Your task to perform on an android device: Search for hotels in Tokyo Image 0: 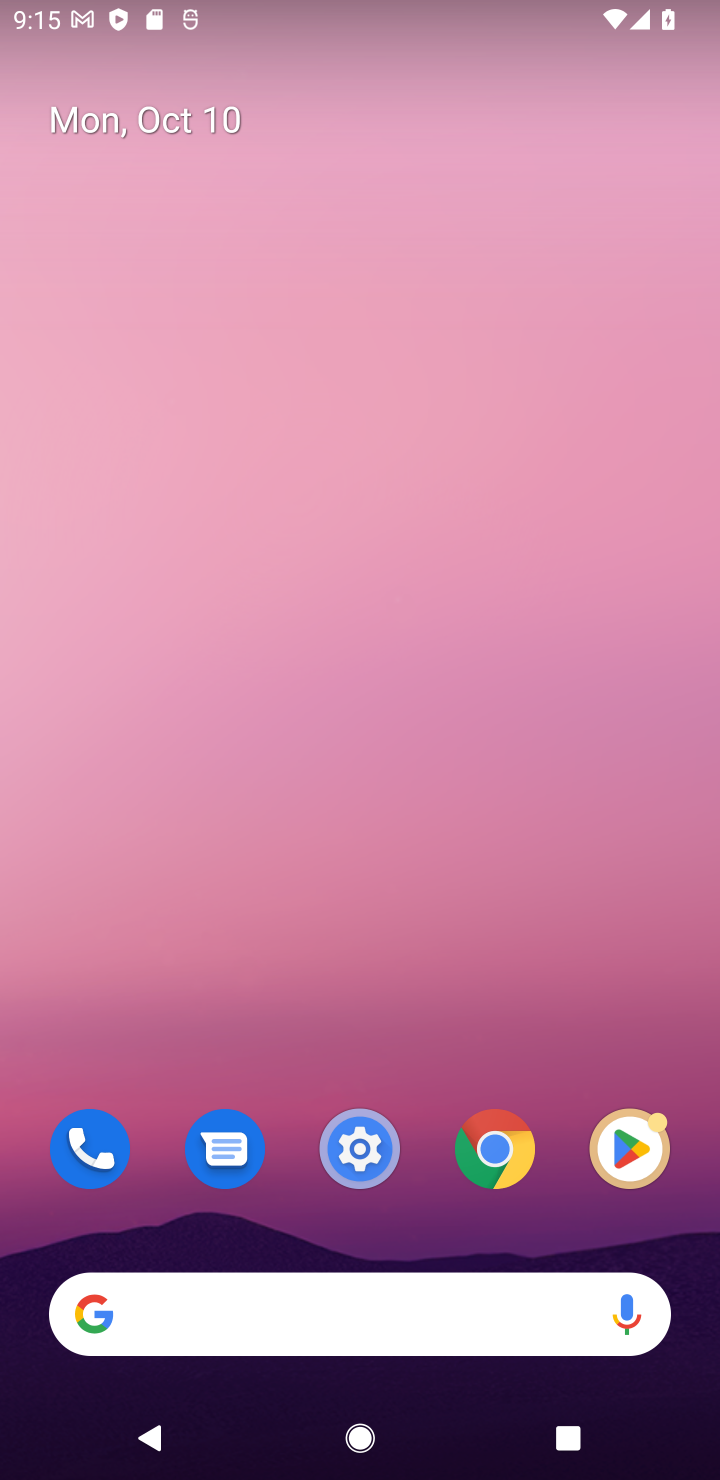
Step 0: click (344, 1342)
Your task to perform on an android device: Search for hotels in Tokyo Image 1: 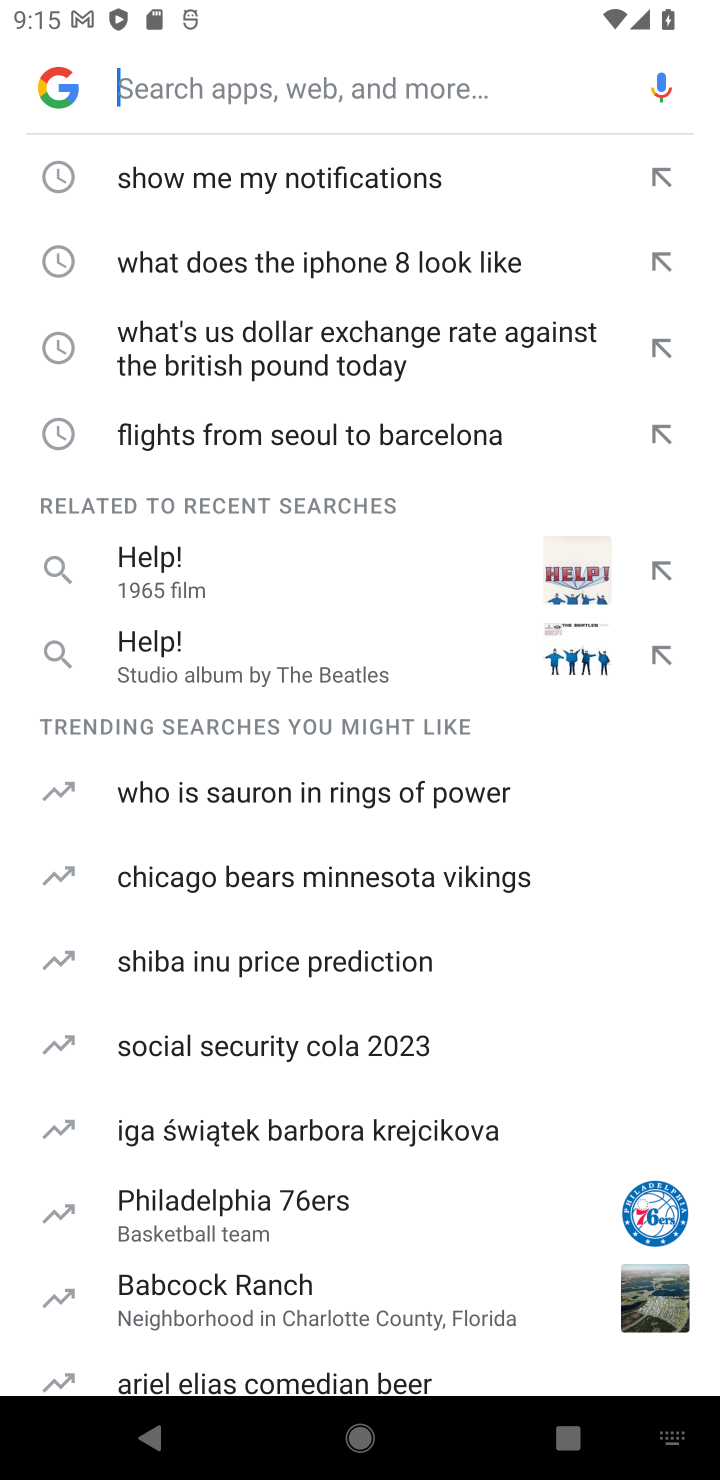
Step 1: type "Search for hotels in Tokyo"
Your task to perform on an android device: Search for hotels in Tokyo Image 2: 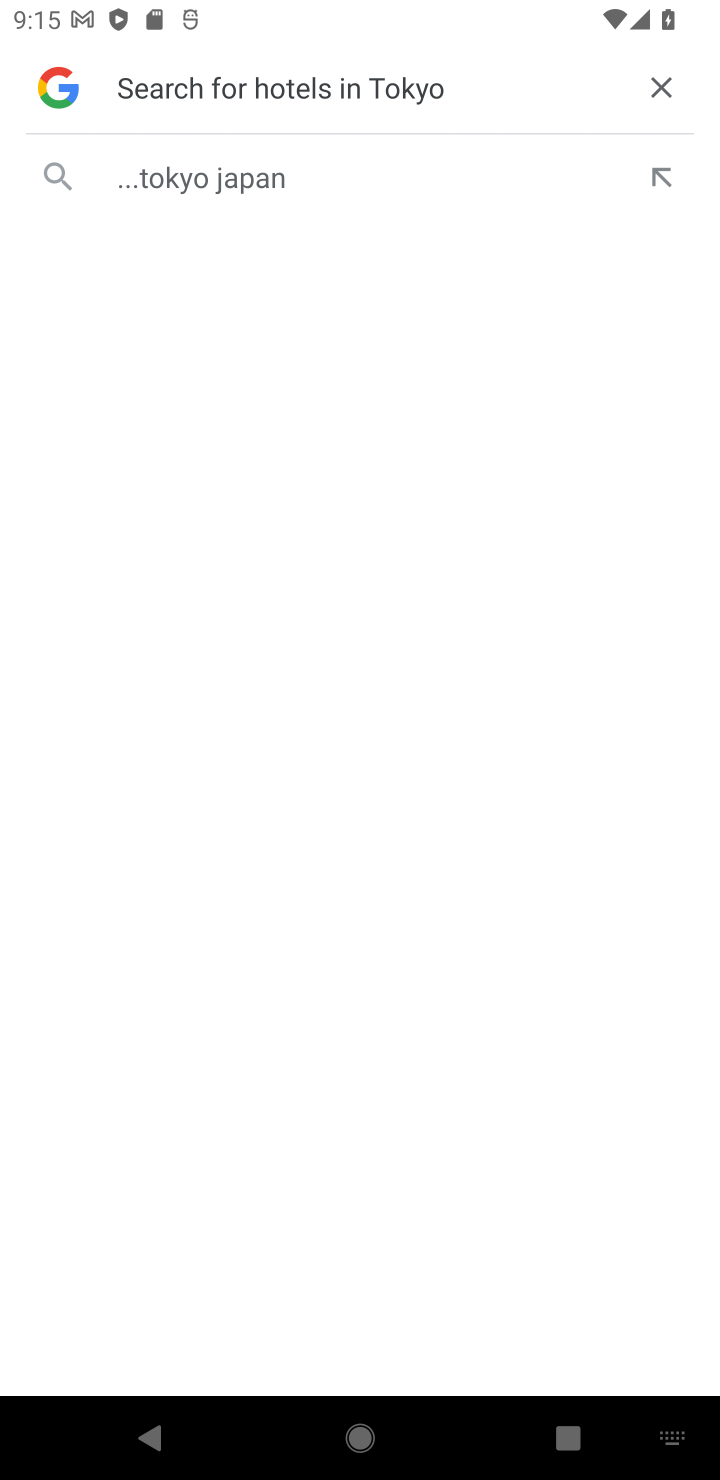
Step 2: click (371, 173)
Your task to perform on an android device: Search for hotels in Tokyo Image 3: 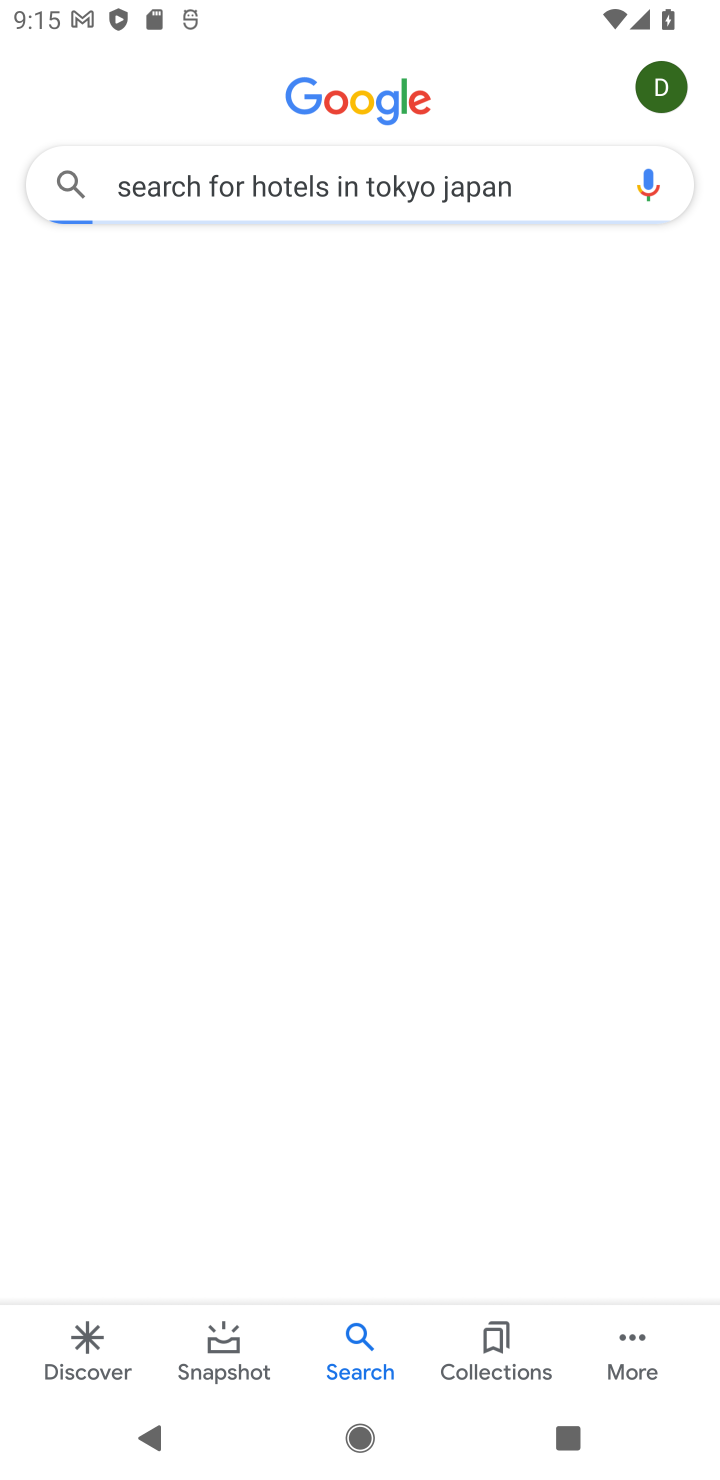
Step 3: task complete